Your task to perform on an android device: Go to notification settings Image 0: 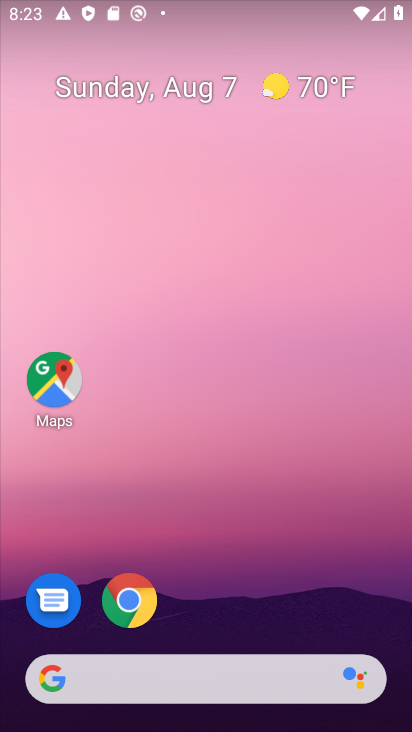
Step 0: drag from (185, 606) to (230, 1)
Your task to perform on an android device: Go to notification settings Image 1: 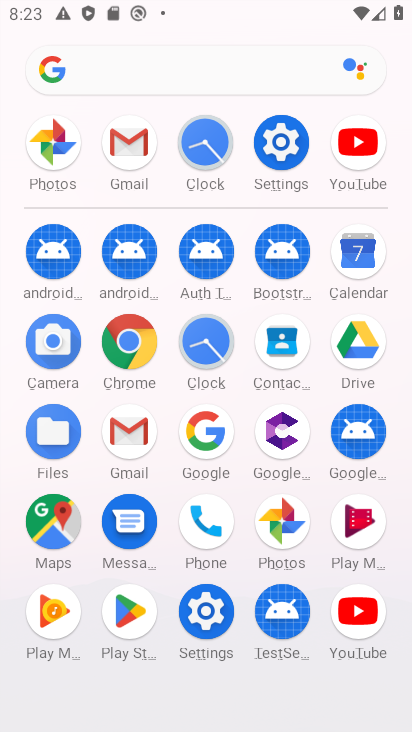
Step 1: click (272, 144)
Your task to perform on an android device: Go to notification settings Image 2: 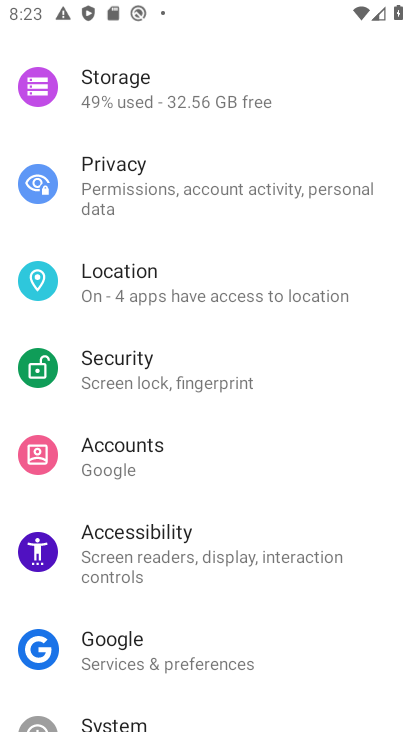
Step 2: drag from (223, 330) to (186, 731)
Your task to perform on an android device: Go to notification settings Image 3: 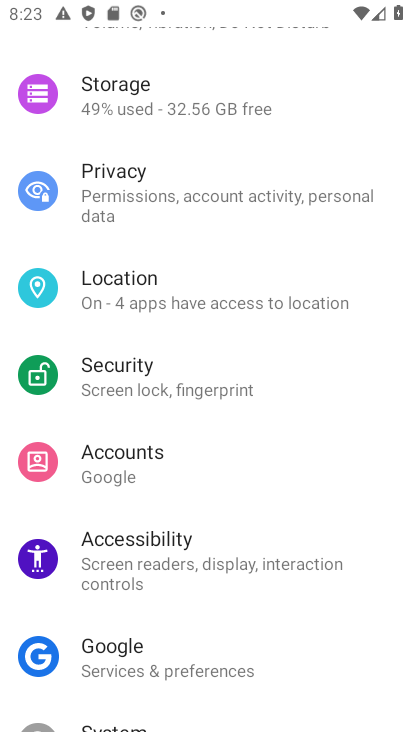
Step 3: drag from (258, 197) to (178, 592)
Your task to perform on an android device: Go to notification settings Image 4: 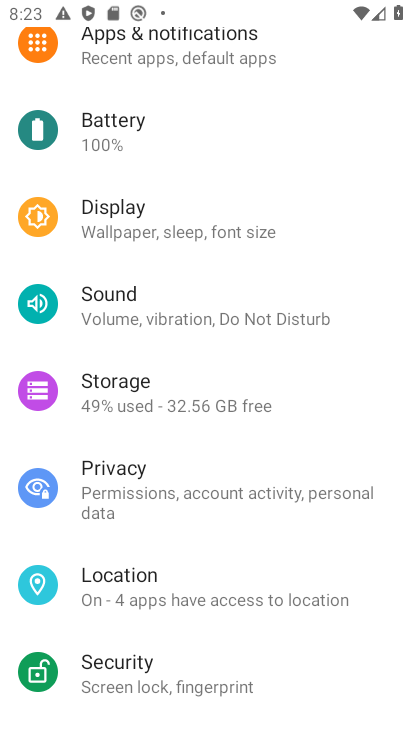
Step 4: click (199, 60)
Your task to perform on an android device: Go to notification settings Image 5: 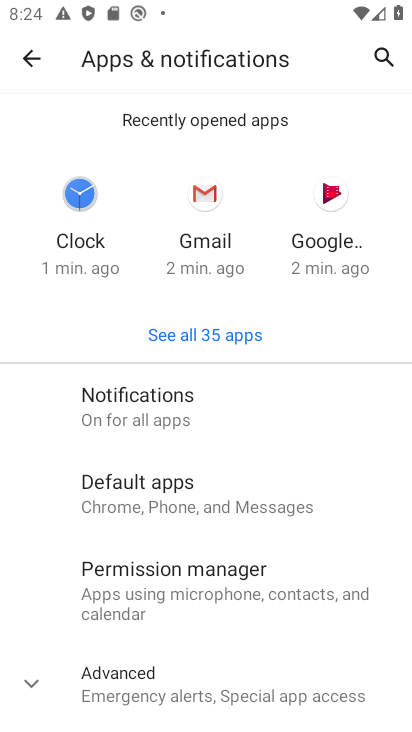
Step 5: drag from (199, 60) to (158, 650)
Your task to perform on an android device: Go to notification settings Image 6: 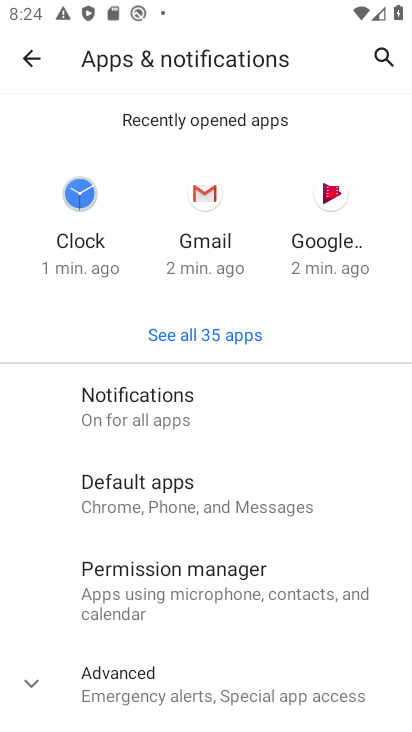
Step 6: click (175, 388)
Your task to perform on an android device: Go to notification settings Image 7: 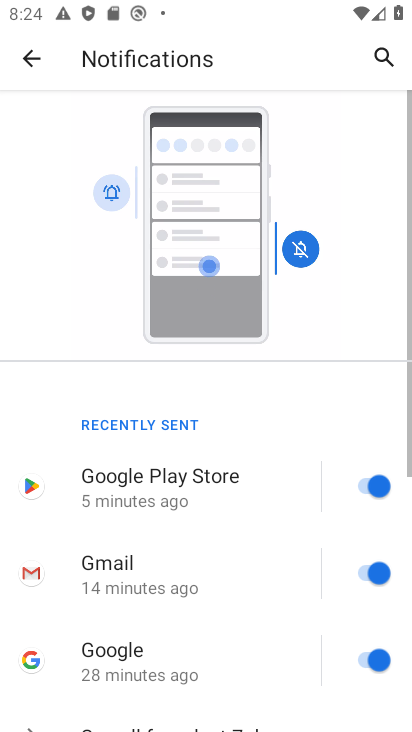
Step 7: task complete